Your task to perform on an android device: turn off airplane mode Image 0: 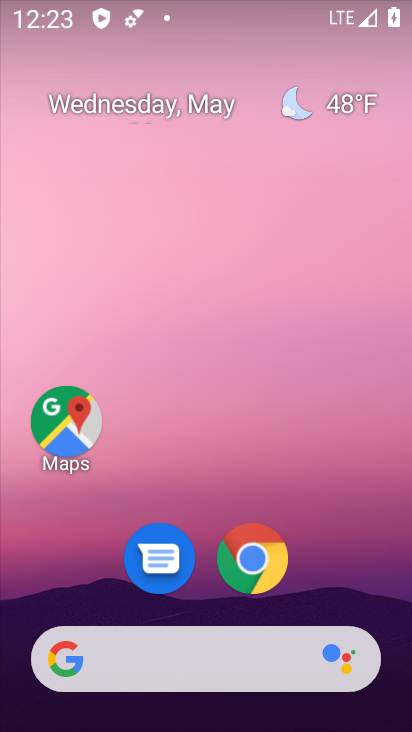
Step 0: drag from (370, 567) to (345, 117)
Your task to perform on an android device: turn off airplane mode Image 1: 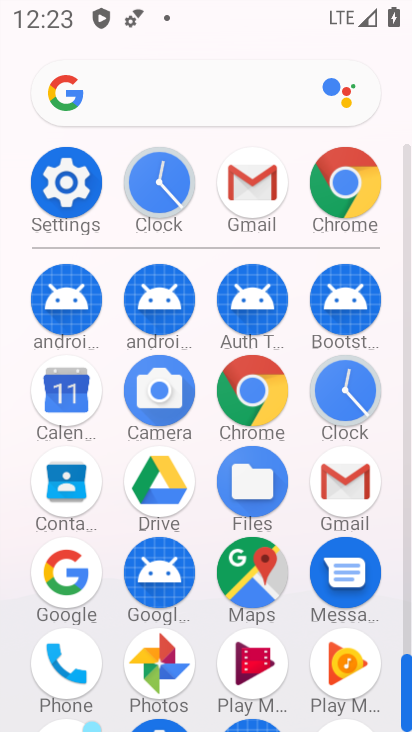
Step 1: click (76, 187)
Your task to perform on an android device: turn off airplane mode Image 2: 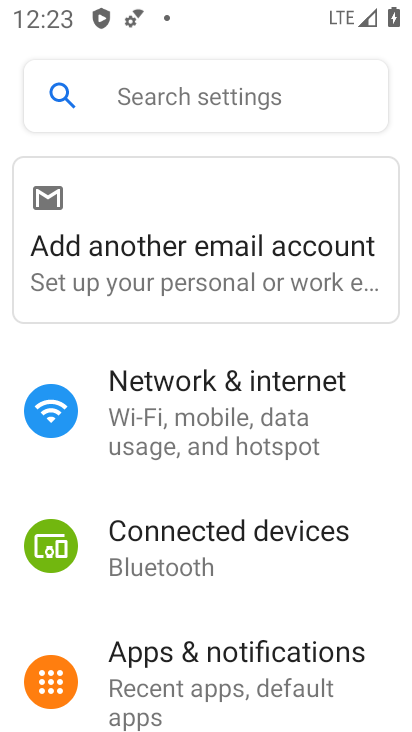
Step 2: drag from (281, 568) to (281, 165)
Your task to perform on an android device: turn off airplane mode Image 3: 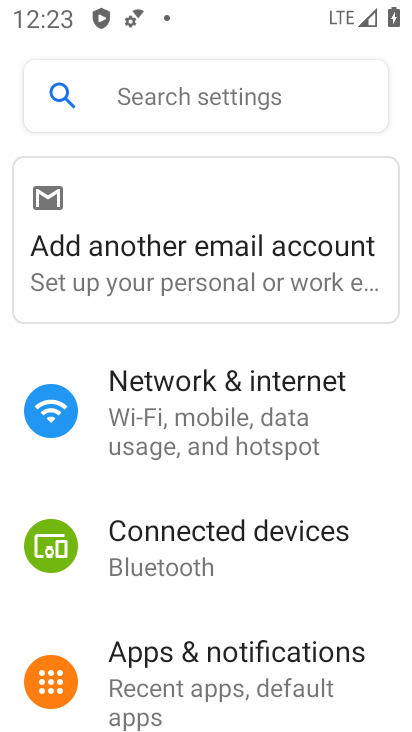
Step 3: click (222, 432)
Your task to perform on an android device: turn off airplane mode Image 4: 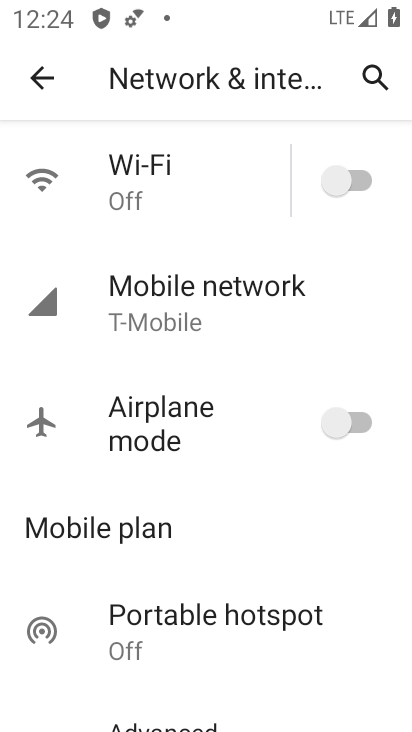
Step 4: task complete